Your task to perform on an android device: Open Google Image 0: 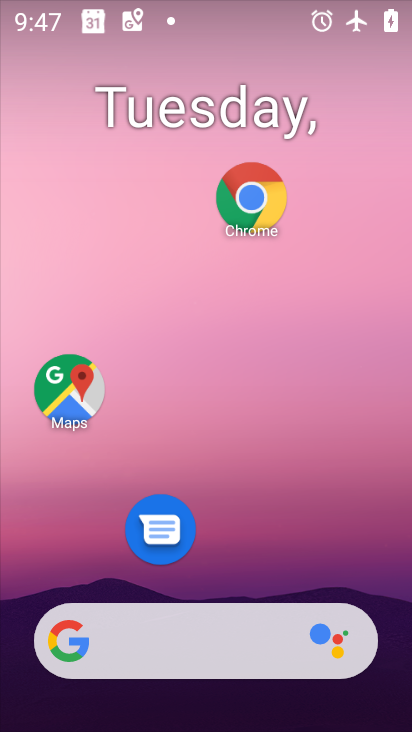
Step 0: click (253, 216)
Your task to perform on an android device: Open Google Image 1: 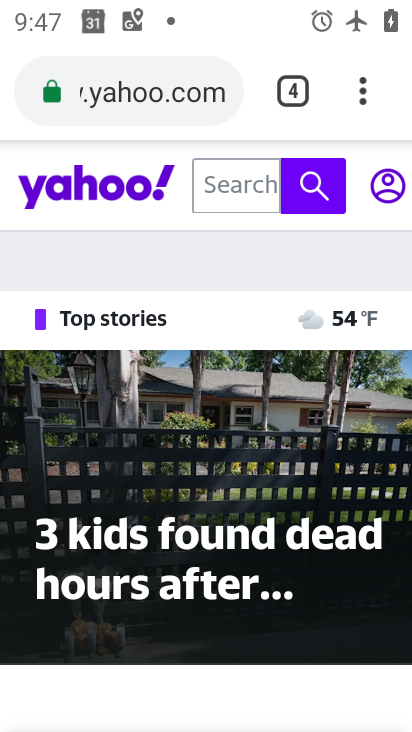
Step 1: click (163, 96)
Your task to perform on an android device: Open Google Image 2: 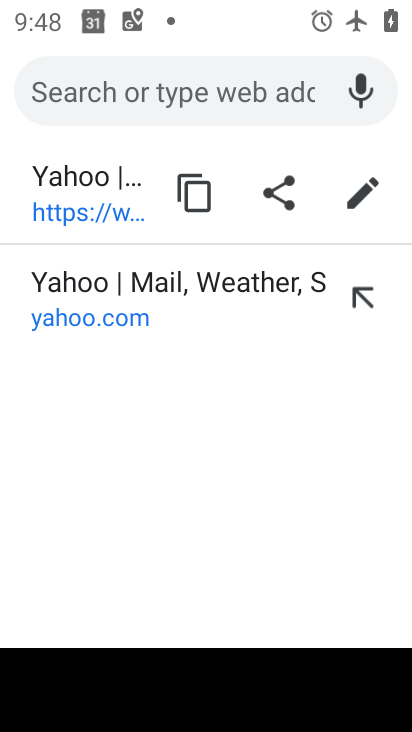
Step 2: type "google.com"
Your task to perform on an android device: Open Google Image 3: 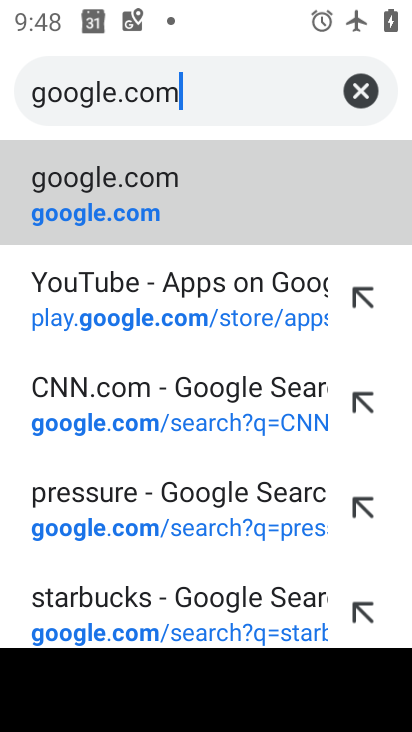
Step 3: click (282, 195)
Your task to perform on an android device: Open Google Image 4: 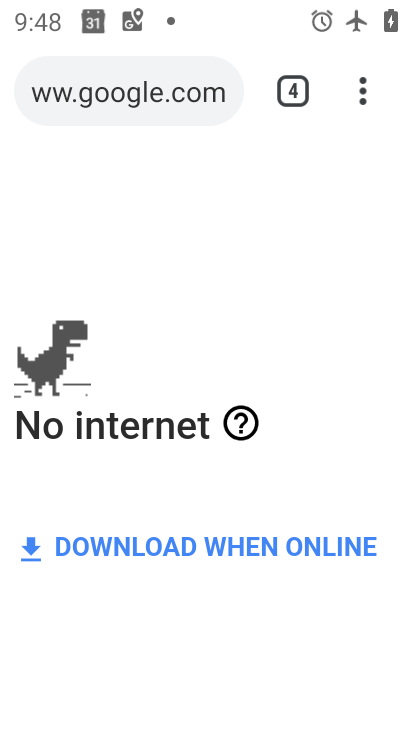
Step 4: task complete